Your task to perform on an android device: allow cookies in the chrome app Image 0: 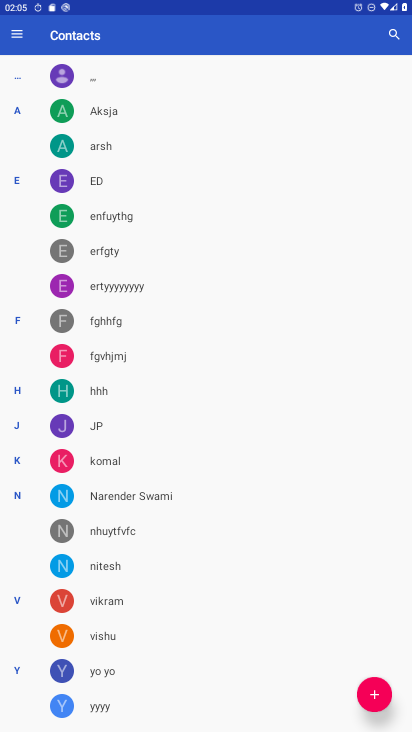
Step 0: press home button
Your task to perform on an android device: allow cookies in the chrome app Image 1: 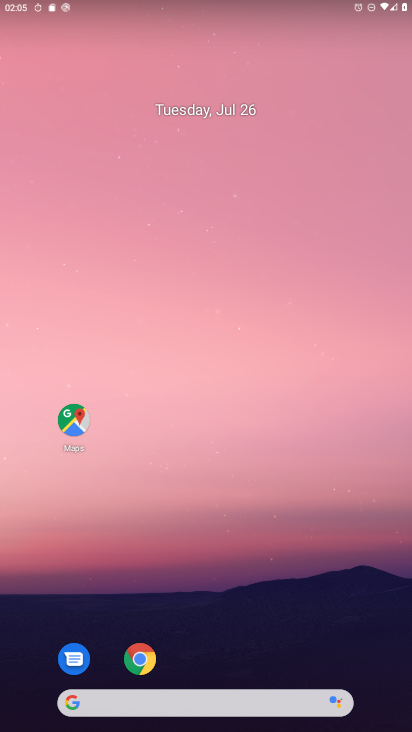
Step 1: click (106, 40)
Your task to perform on an android device: allow cookies in the chrome app Image 2: 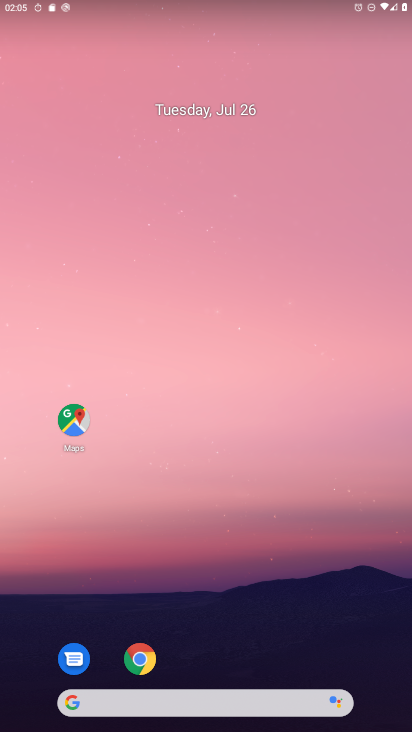
Step 2: drag from (306, 665) to (171, 0)
Your task to perform on an android device: allow cookies in the chrome app Image 3: 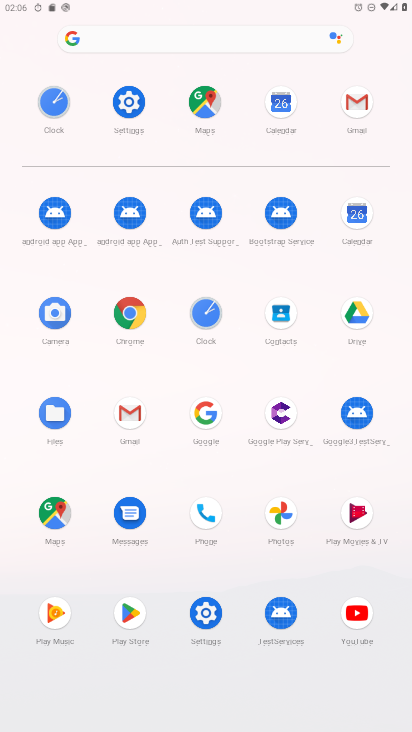
Step 3: click (130, 333)
Your task to perform on an android device: allow cookies in the chrome app Image 4: 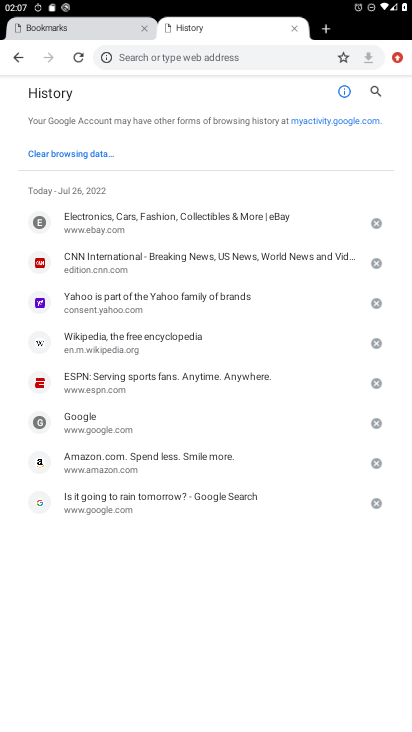
Step 4: drag from (395, 60) to (275, 316)
Your task to perform on an android device: allow cookies in the chrome app Image 5: 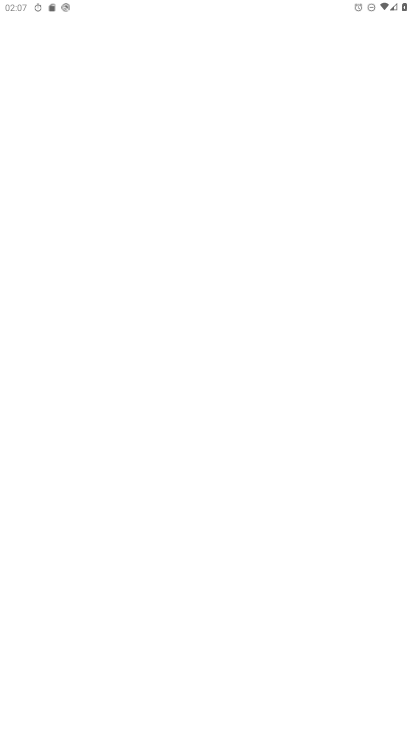
Step 5: click (22, 61)
Your task to perform on an android device: allow cookies in the chrome app Image 6: 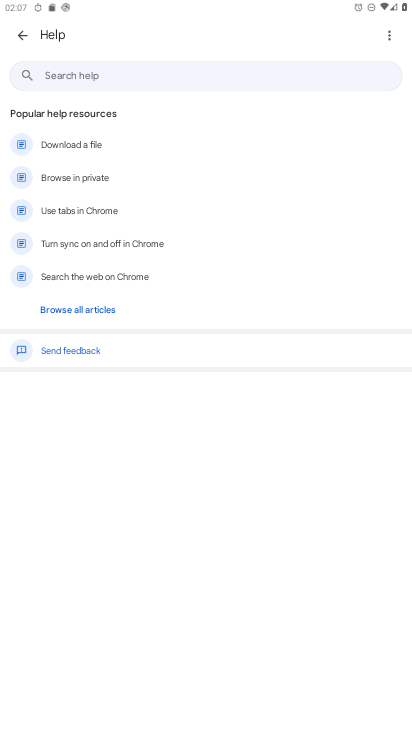
Step 6: press back button
Your task to perform on an android device: allow cookies in the chrome app Image 7: 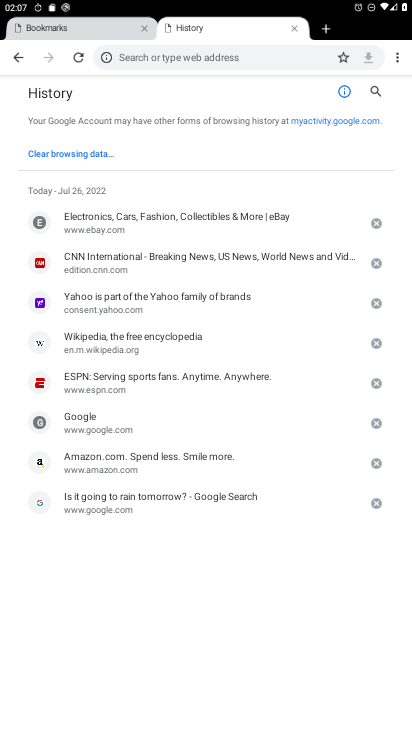
Step 7: drag from (402, 60) to (285, 294)
Your task to perform on an android device: allow cookies in the chrome app Image 8: 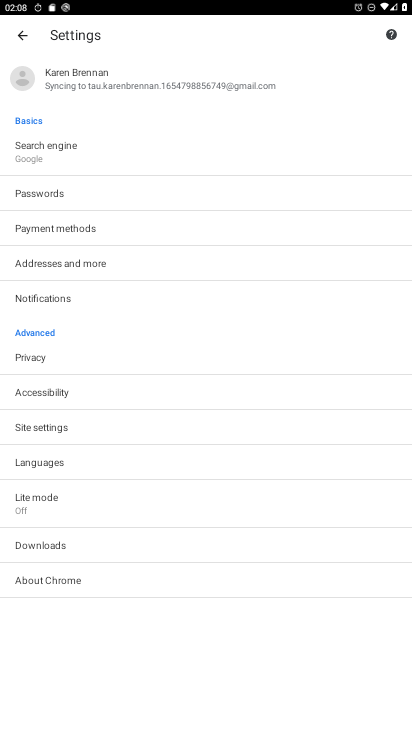
Step 8: click (41, 430)
Your task to perform on an android device: allow cookies in the chrome app Image 9: 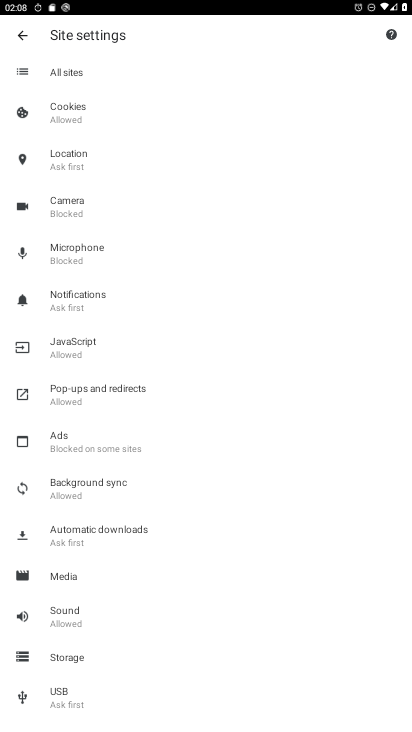
Step 9: click (81, 95)
Your task to perform on an android device: allow cookies in the chrome app Image 10: 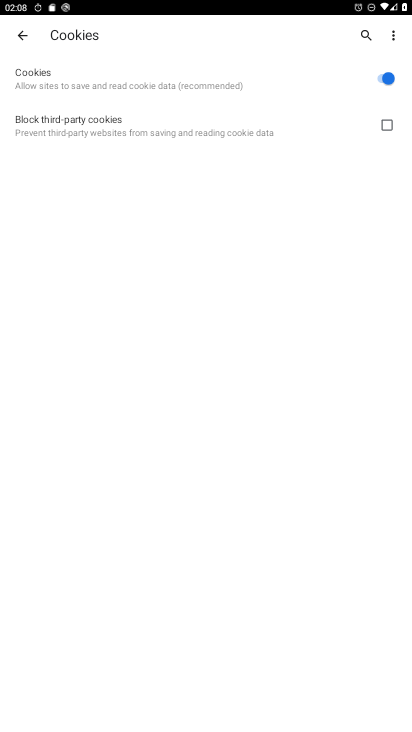
Step 10: task complete